Your task to perform on an android device: Go to accessibility settings Image 0: 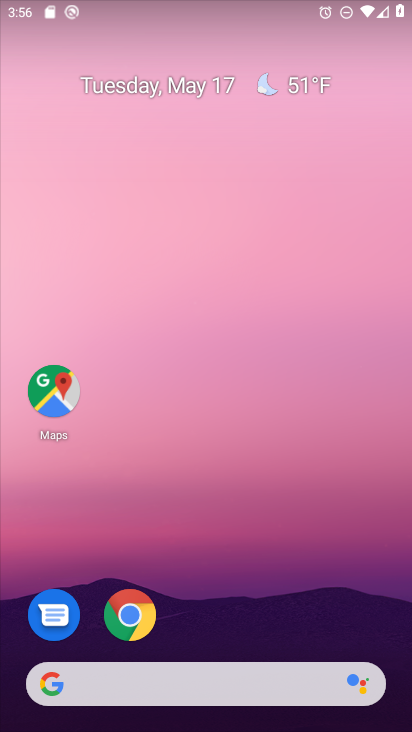
Step 0: drag from (221, 644) to (237, 86)
Your task to perform on an android device: Go to accessibility settings Image 1: 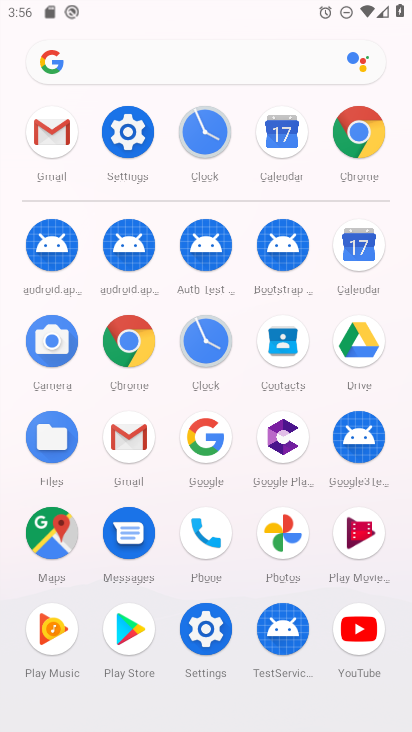
Step 1: click (120, 126)
Your task to perform on an android device: Go to accessibility settings Image 2: 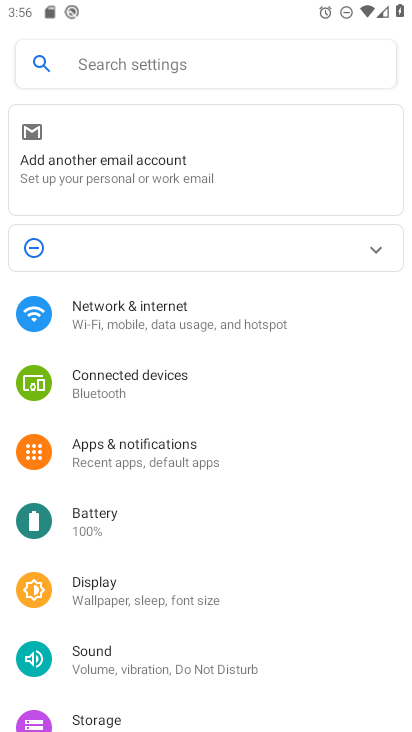
Step 2: drag from (179, 625) to (220, 170)
Your task to perform on an android device: Go to accessibility settings Image 3: 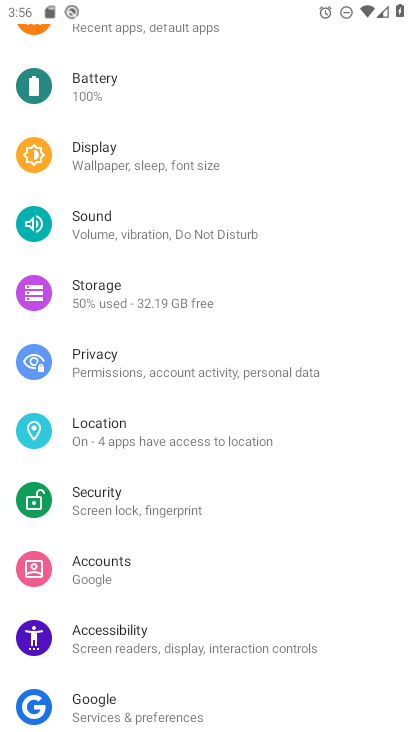
Step 3: click (168, 625)
Your task to perform on an android device: Go to accessibility settings Image 4: 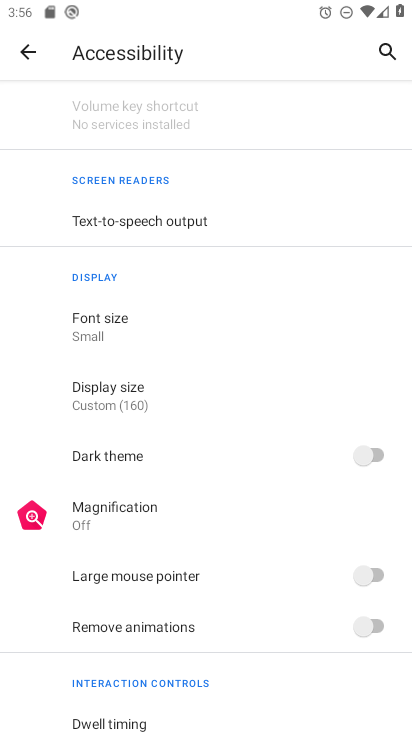
Step 4: task complete